Your task to perform on an android device: Open calendar and show me the fourth week of next month Image 0: 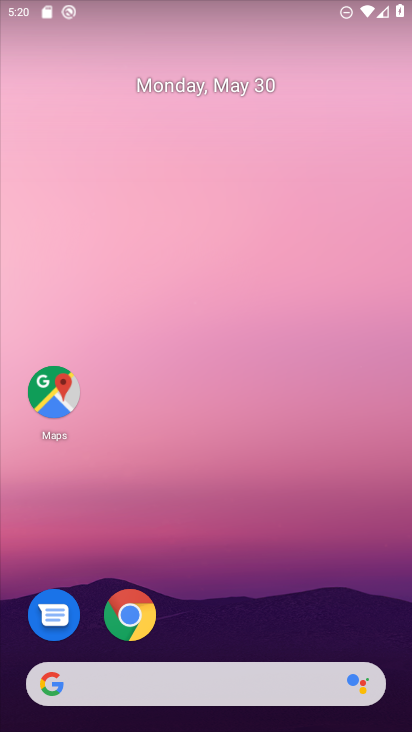
Step 0: click (211, 81)
Your task to perform on an android device: Open calendar and show me the fourth week of next month Image 1: 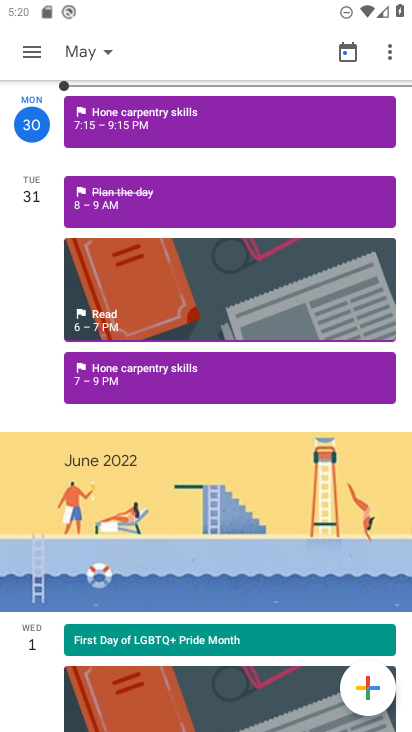
Step 1: click (121, 65)
Your task to perform on an android device: Open calendar and show me the fourth week of next month Image 2: 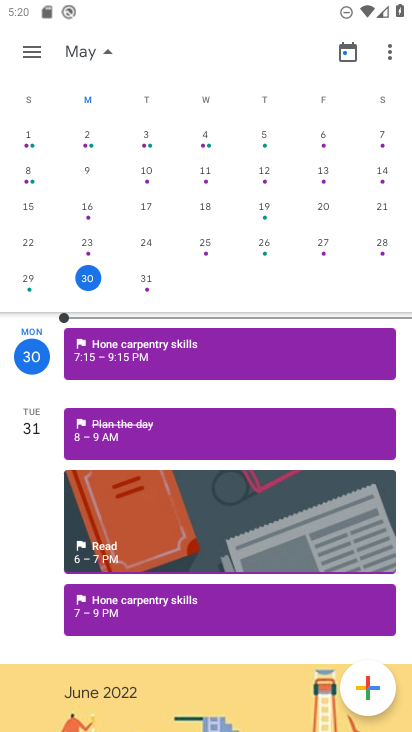
Step 2: drag from (384, 279) to (4, 221)
Your task to perform on an android device: Open calendar and show me the fourth week of next month Image 3: 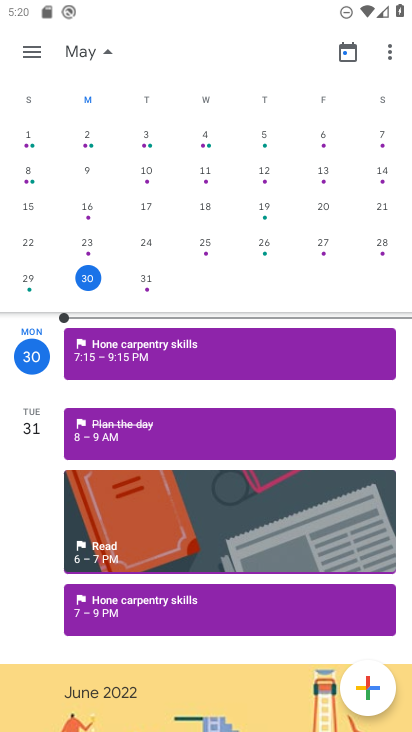
Step 3: drag from (394, 290) to (12, 241)
Your task to perform on an android device: Open calendar and show me the fourth week of next month Image 4: 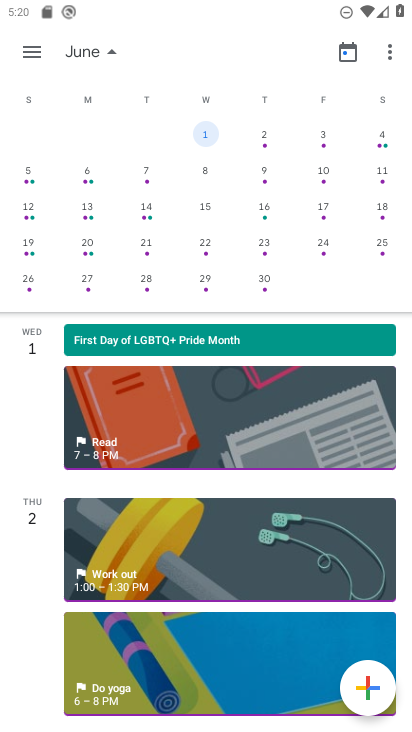
Step 4: click (200, 247)
Your task to perform on an android device: Open calendar and show me the fourth week of next month Image 5: 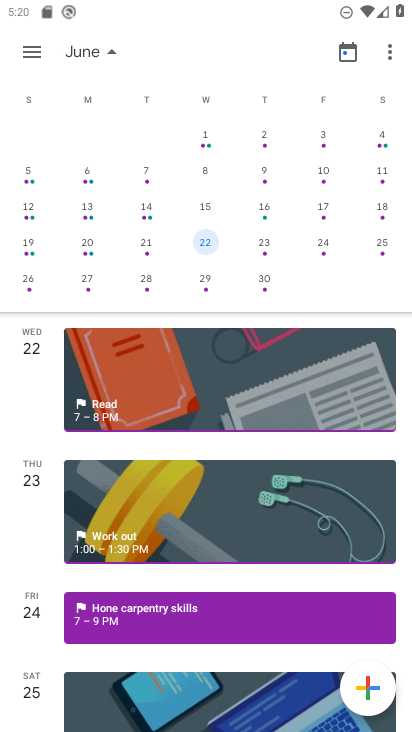
Step 5: task complete